Your task to perform on an android device: open app "Messenger Lite" (install if not already installed) Image 0: 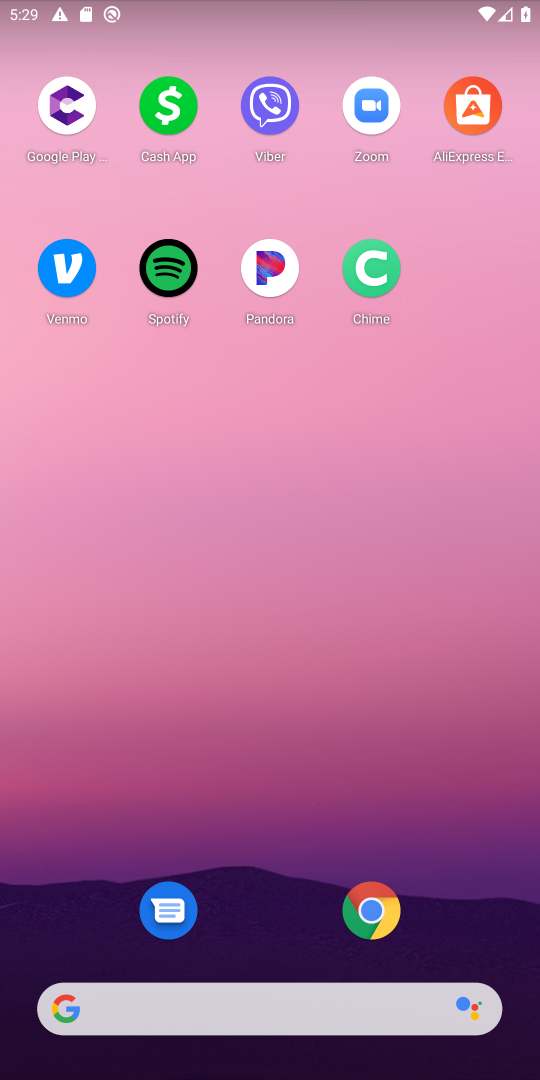
Step 0: drag from (271, 1005) to (477, 176)
Your task to perform on an android device: open app "Messenger Lite" (install if not already installed) Image 1: 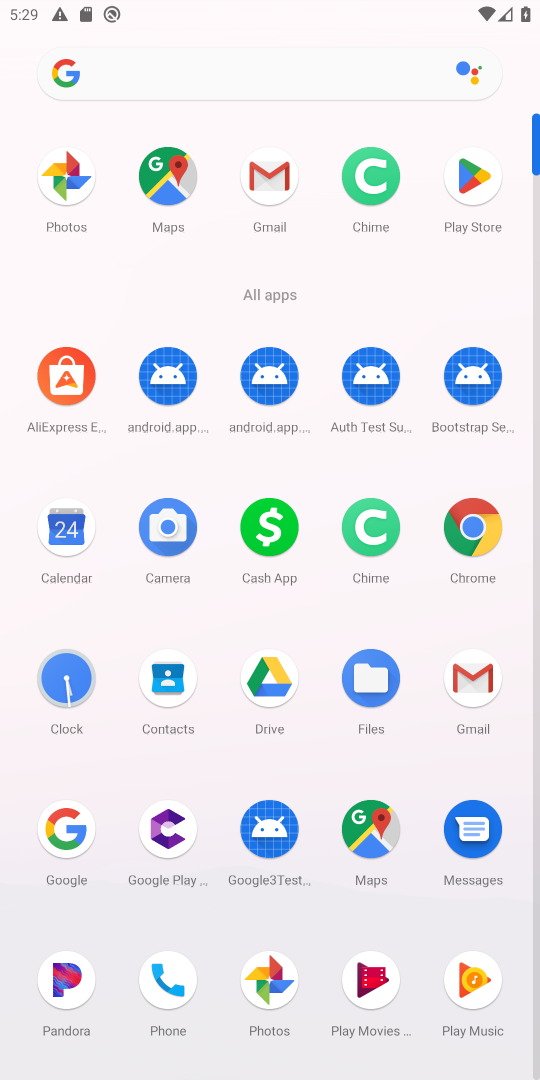
Step 1: click (469, 173)
Your task to perform on an android device: open app "Messenger Lite" (install if not already installed) Image 2: 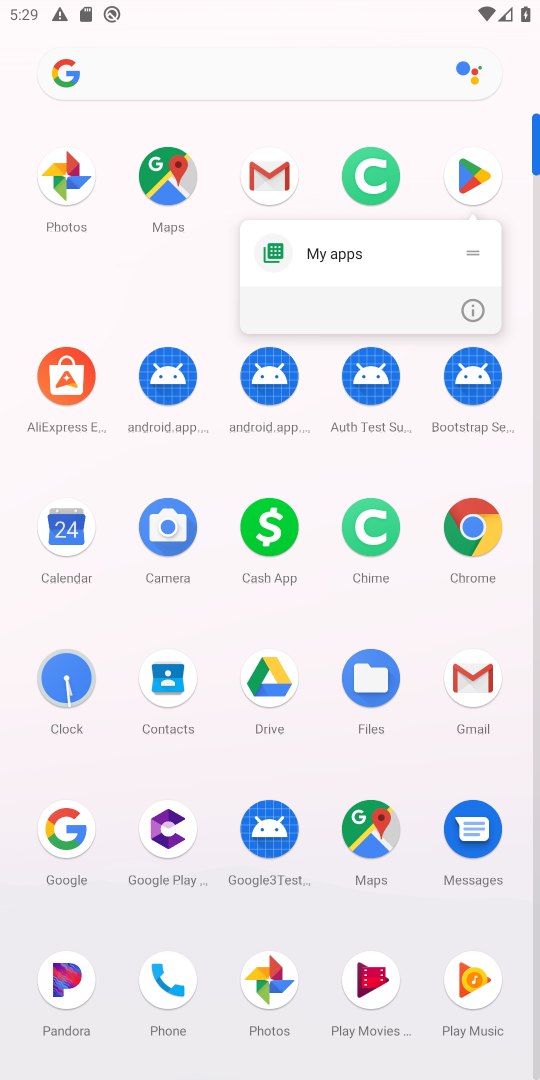
Step 2: click (477, 170)
Your task to perform on an android device: open app "Messenger Lite" (install if not already installed) Image 3: 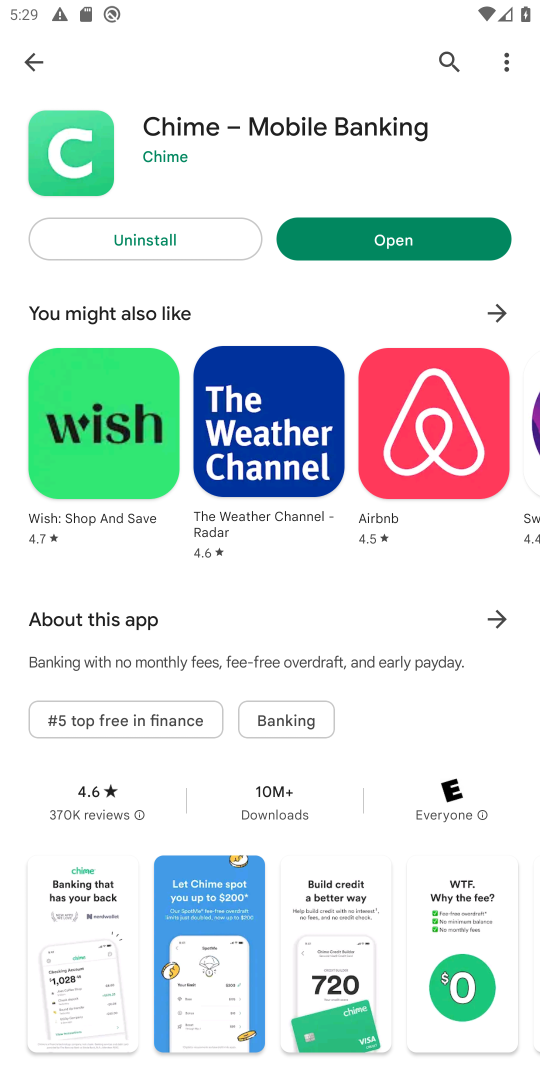
Step 3: click (444, 63)
Your task to perform on an android device: open app "Messenger Lite" (install if not already installed) Image 4: 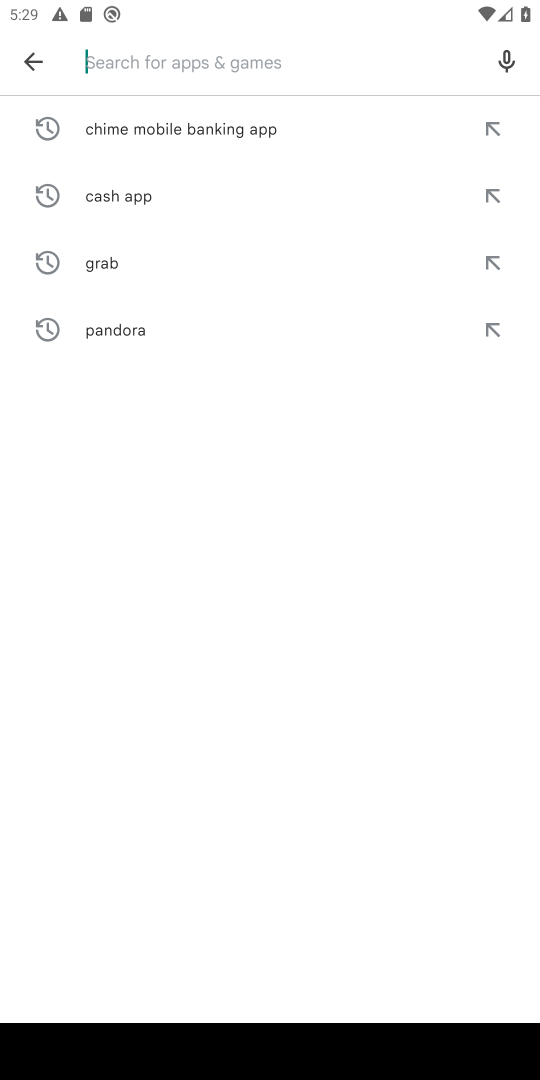
Step 4: type "messenger lite"
Your task to perform on an android device: open app "Messenger Lite" (install if not already installed) Image 5: 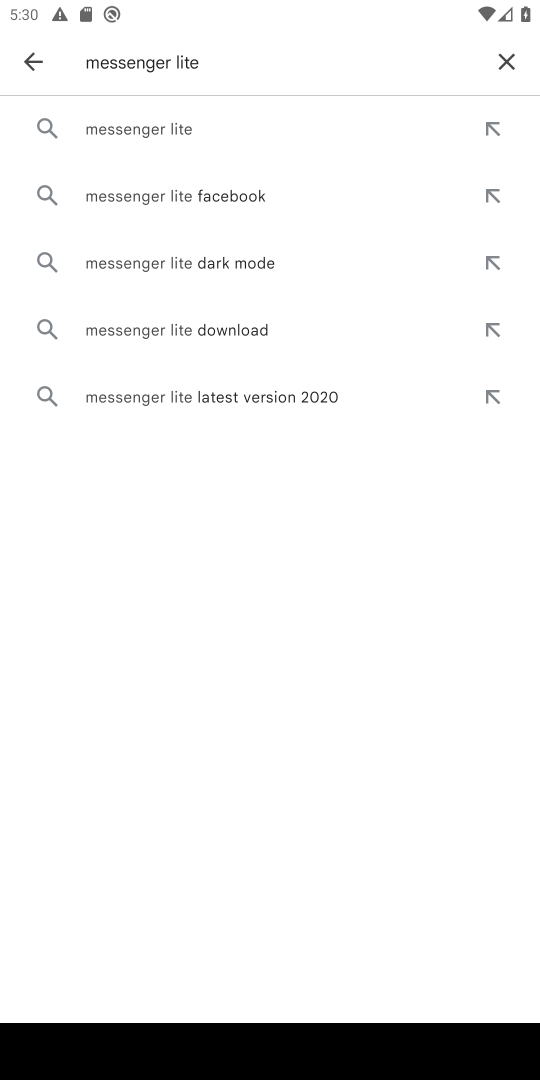
Step 5: click (158, 139)
Your task to perform on an android device: open app "Messenger Lite" (install if not already installed) Image 6: 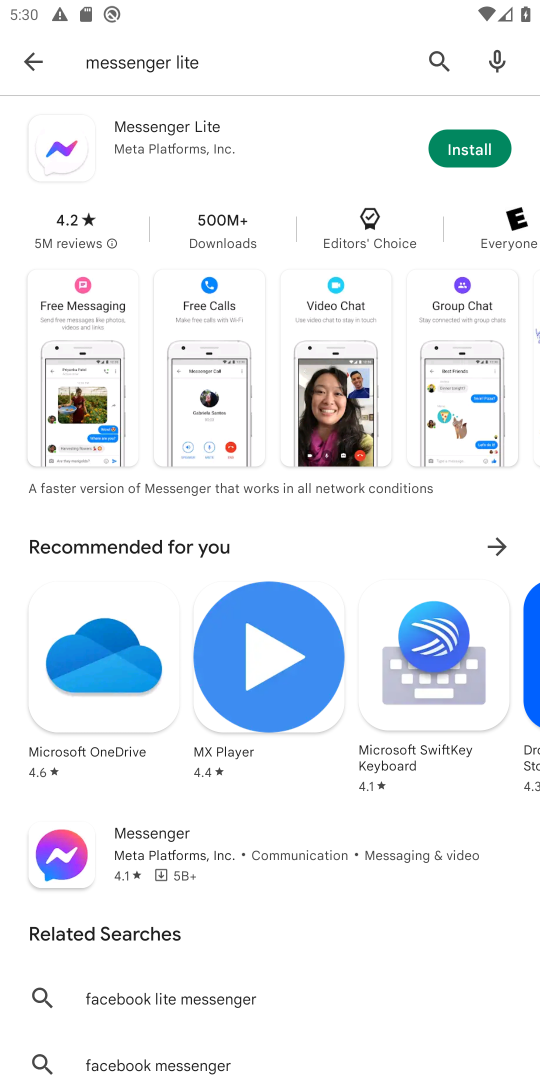
Step 6: click (460, 153)
Your task to perform on an android device: open app "Messenger Lite" (install if not already installed) Image 7: 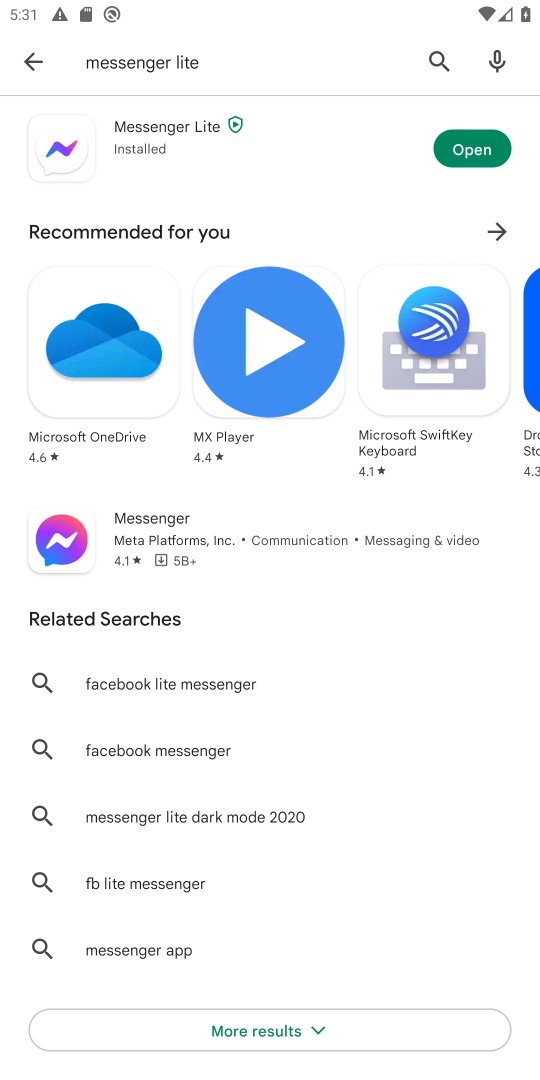
Step 7: click (451, 156)
Your task to perform on an android device: open app "Messenger Lite" (install if not already installed) Image 8: 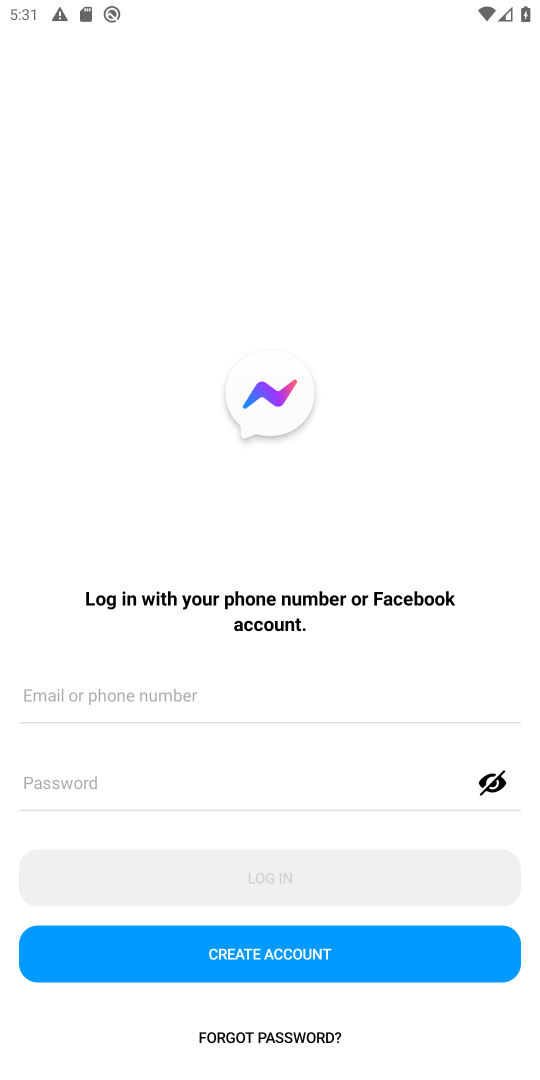
Step 8: task complete